Your task to perform on an android device: Search for "jbl charge 4" on target.com, select the first entry, add it to the cart, then select checkout. Image 0: 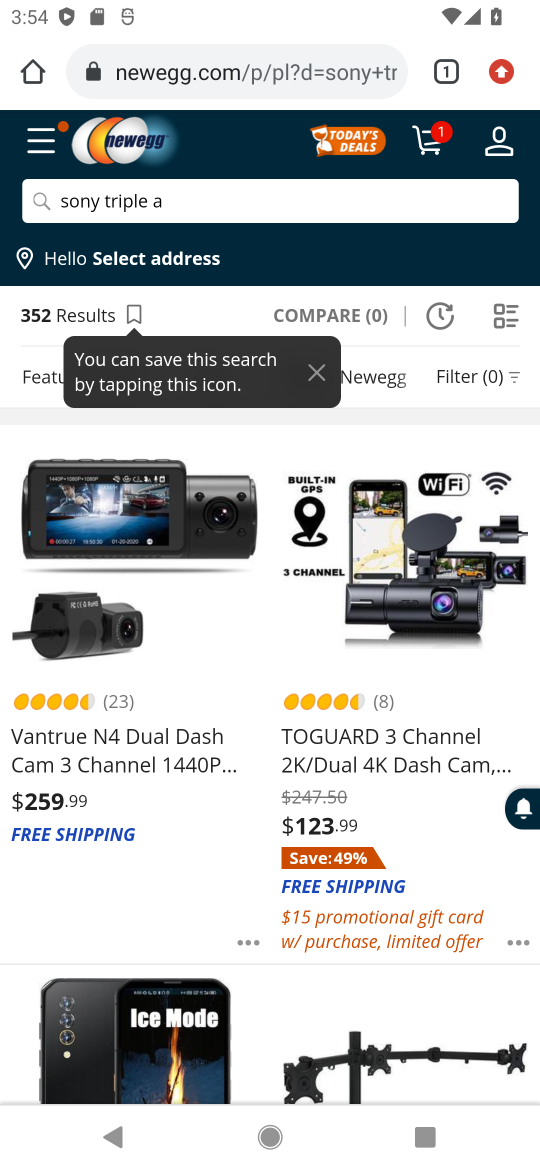
Step 0: press home button
Your task to perform on an android device: Search for "jbl charge 4" on target.com, select the first entry, add it to the cart, then select checkout. Image 1: 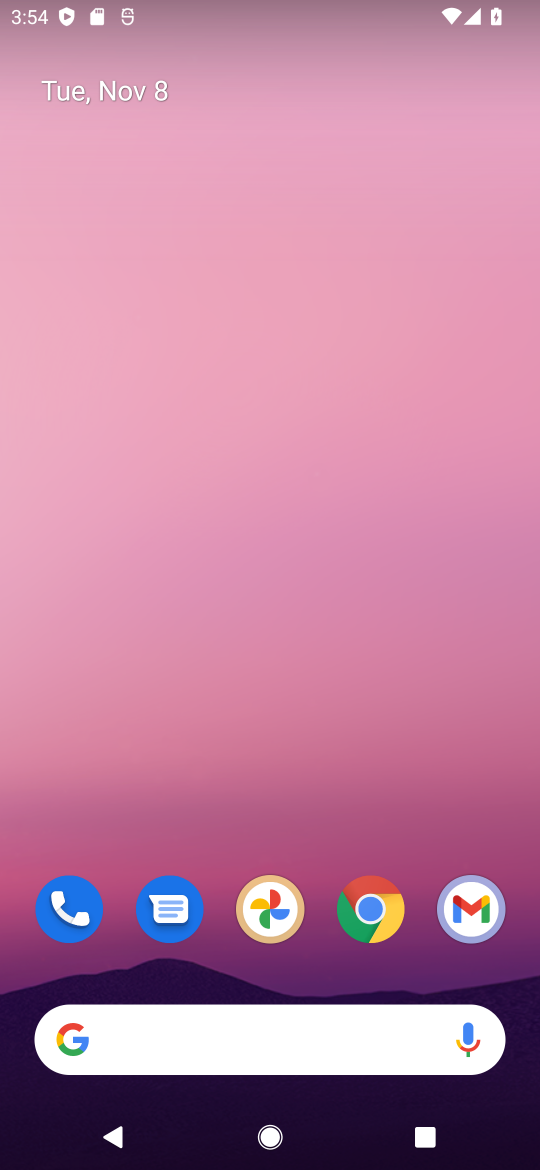
Step 1: click (379, 914)
Your task to perform on an android device: Search for "jbl charge 4" on target.com, select the first entry, add it to the cart, then select checkout. Image 2: 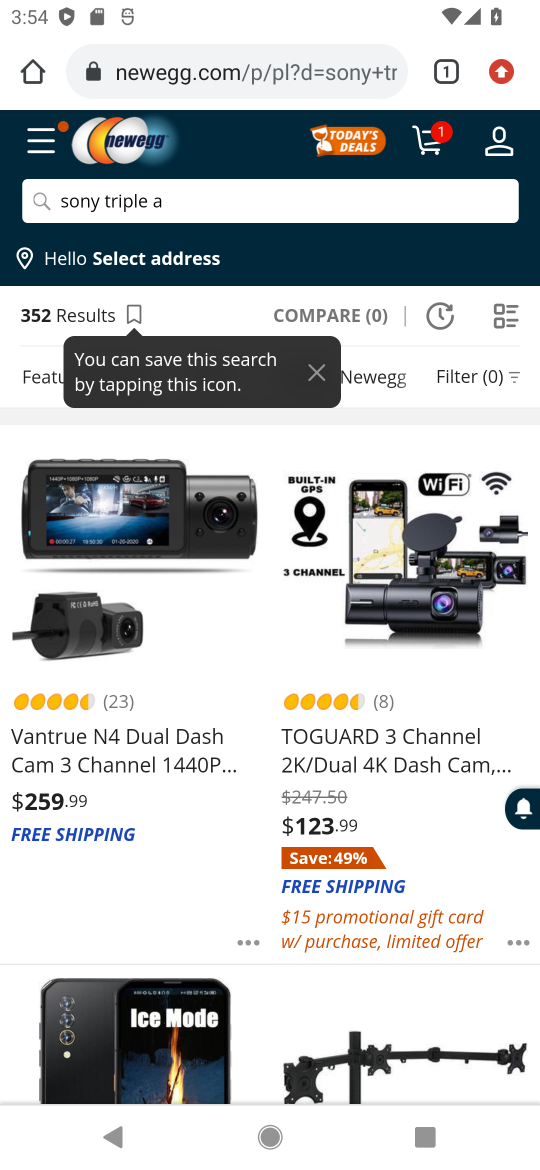
Step 2: click (251, 70)
Your task to perform on an android device: Search for "jbl charge 4" on target.com, select the first entry, add it to the cart, then select checkout. Image 3: 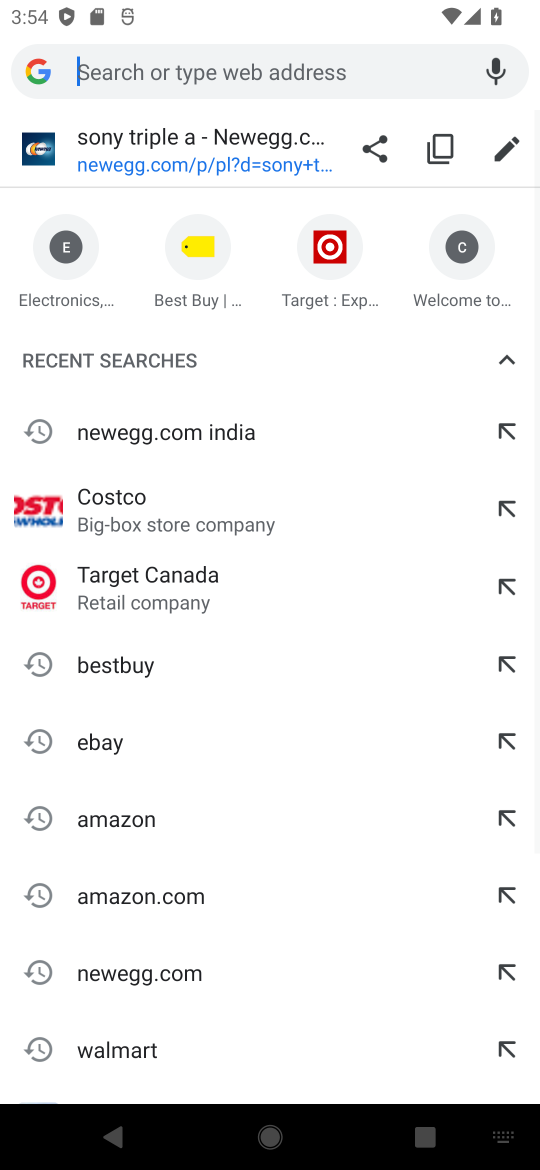
Step 3: click (329, 250)
Your task to perform on an android device: Search for "jbl charge 4" on target.com, select the first entry, add it to the cart, then select checkout. Image 4: 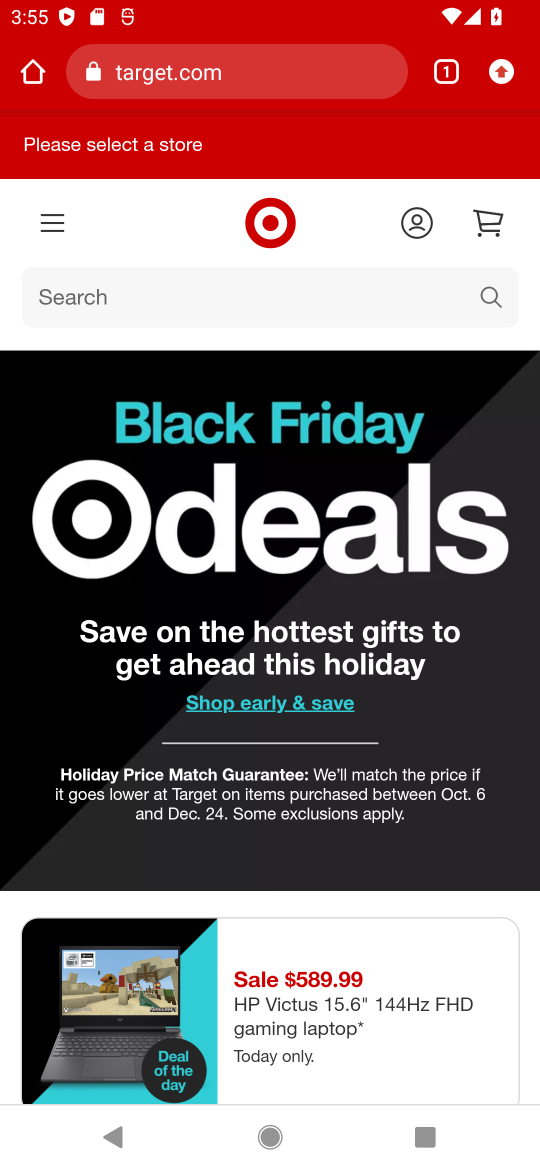
Step 4: click (121, 293)
Your task to perform on an android device: Search for "jbl charge 4" on target.com, select the first entry, add it to the cart, then select checkout. Image 5: 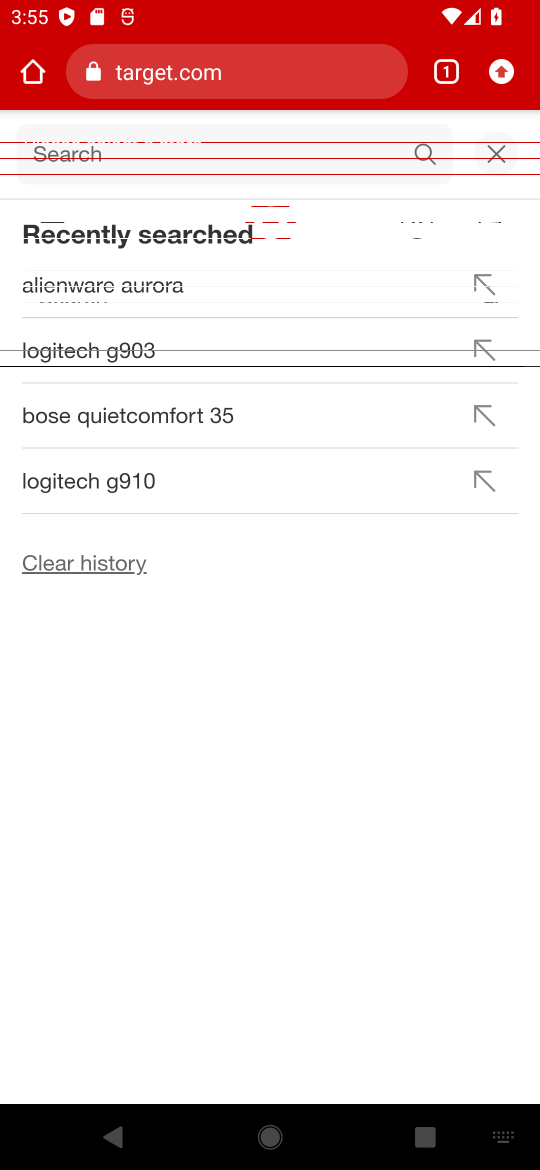
Step 5: type "jbl charge 4"
Your task to perform on an android device: Search for "jbl charge 4" on target.com, select the first entry, add it to the cart, then select checkout. Image 6: 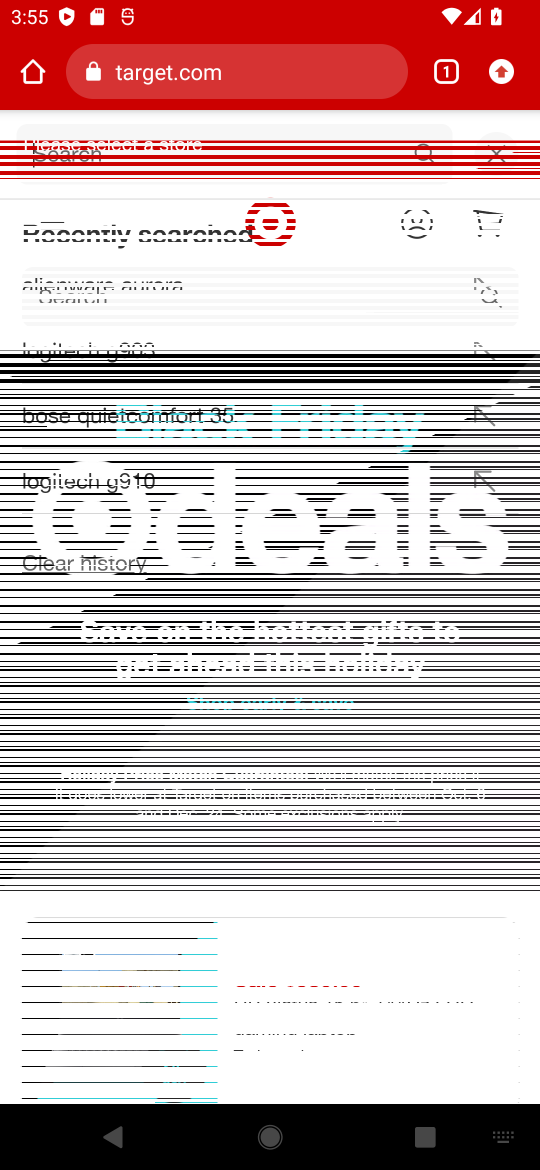
Step 6: press enter
Your task to perform on an android device: Search for "jbl charge 4" on target.com, select the first entry, add it to the cart, then select checkout. Image 7: 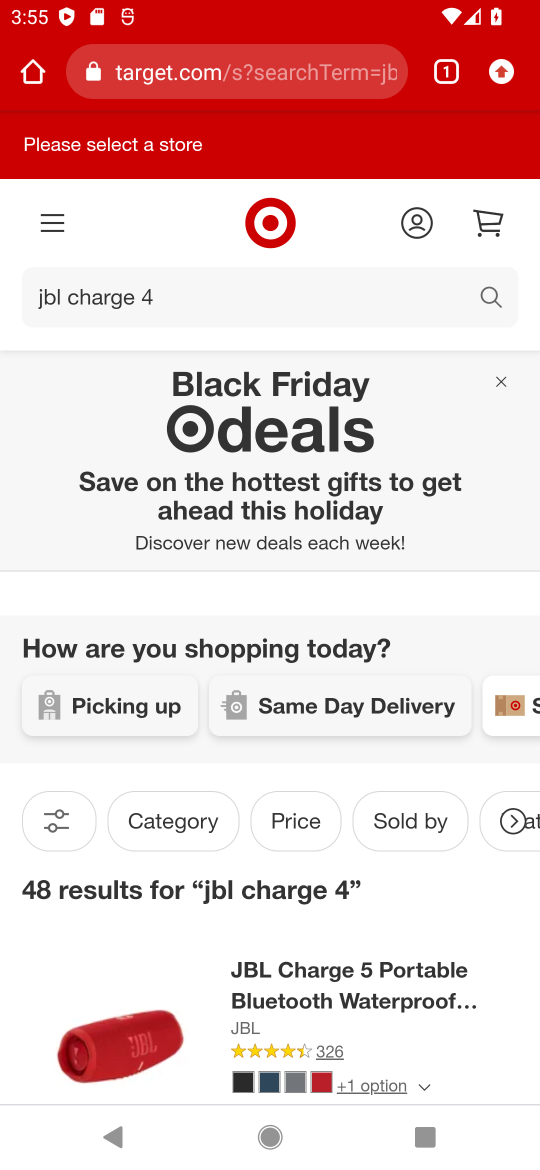
Step 7: task complete